Your task to perform on an android device: check google app version Image 0: 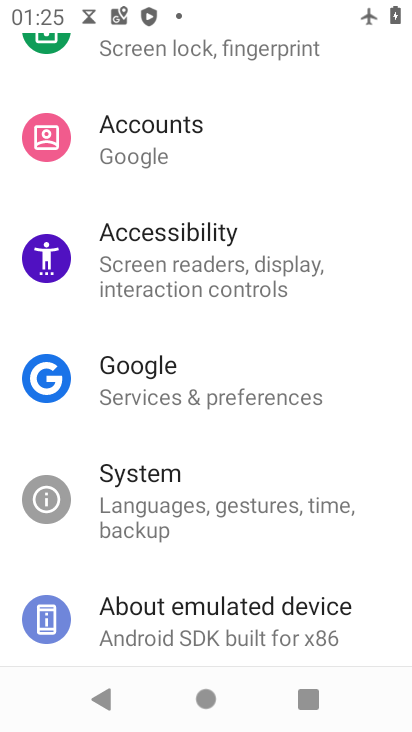
Step 0: press home button
Your task to perform on an android device: check google app version Image 1: 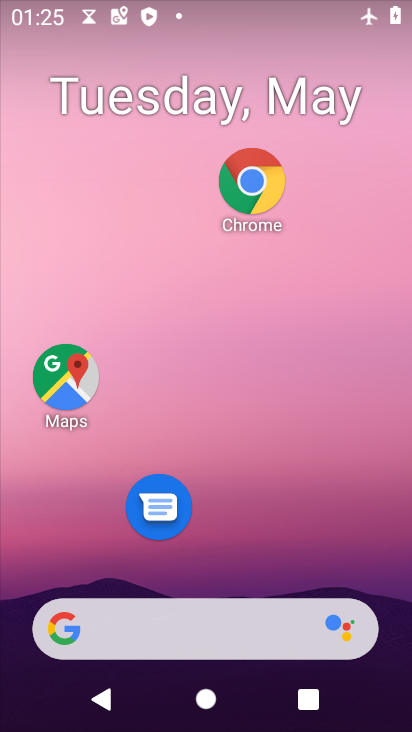
Step 1: click (243, 173)
Your task to perform on an android device: check google app version Image 2: 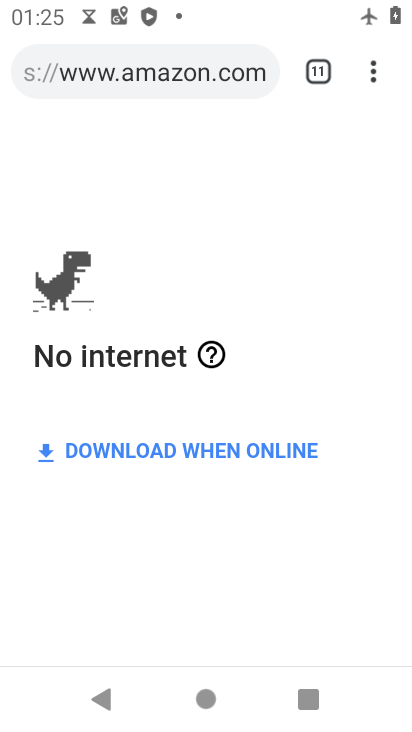
Step 2: press home button
Your task to perform on an android device: check google app version Image 3: 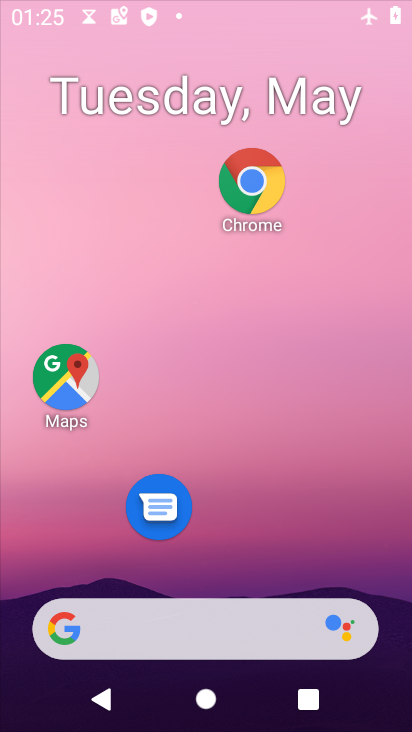
Step 3: drag from (205, 548) to (252, 236)
Your task to perform on an android device: check google app version Image 4: 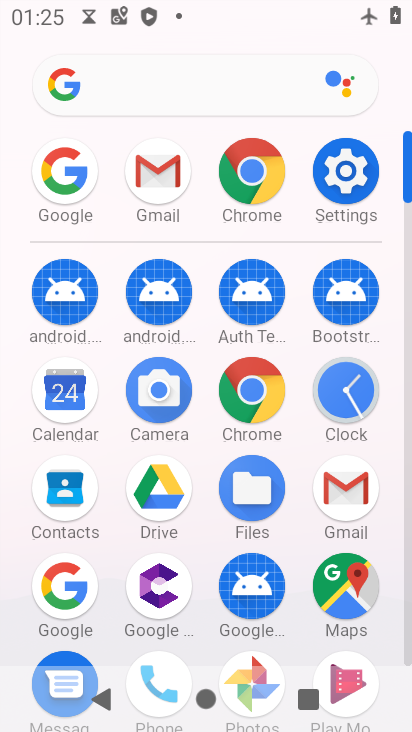
Step 4: click (65, 583)
Your task to perform on an android device: check google app version Image 5: 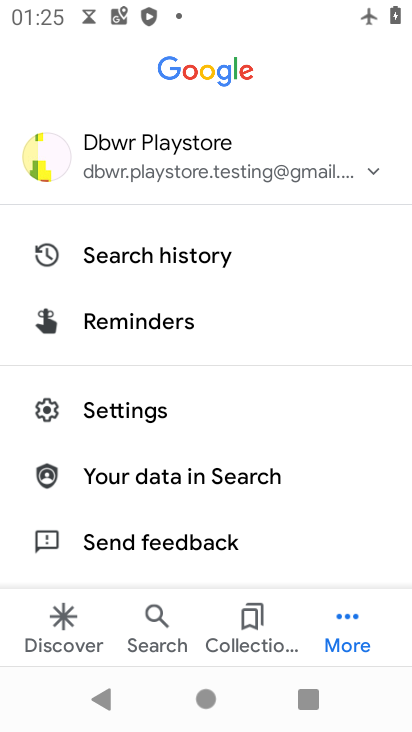
Step 5: click (132, 415)
Your task to perform on an android device: check google app version Image 6: 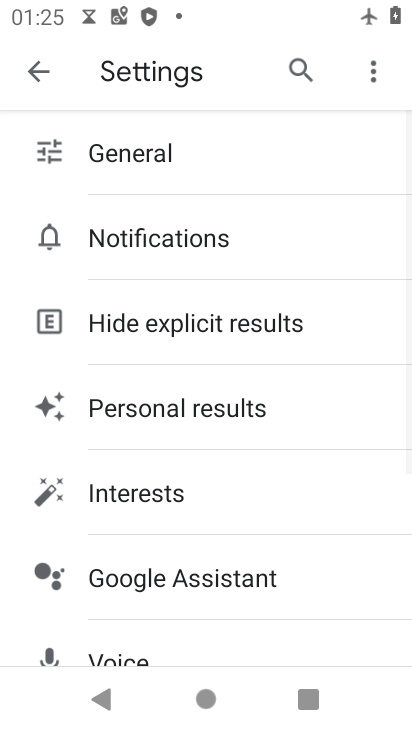
Step 6: drag from (218, 196) to (292, 446)
Your task to perform on an android device: check google app version Image 7: 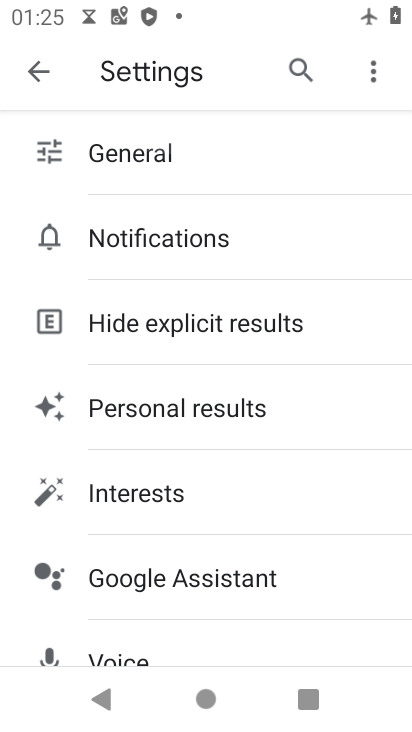
Step 7: drag from (243, 555) to (326, 103)
Your task to perform on an android device: check google app version Image 8: 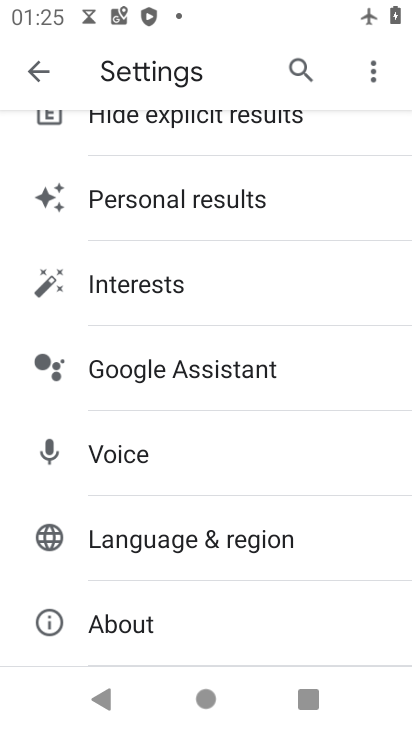
Step 8: drag from (276, 469) to (274, 318)
Your task to perform on an android device: check google app version Image 9: 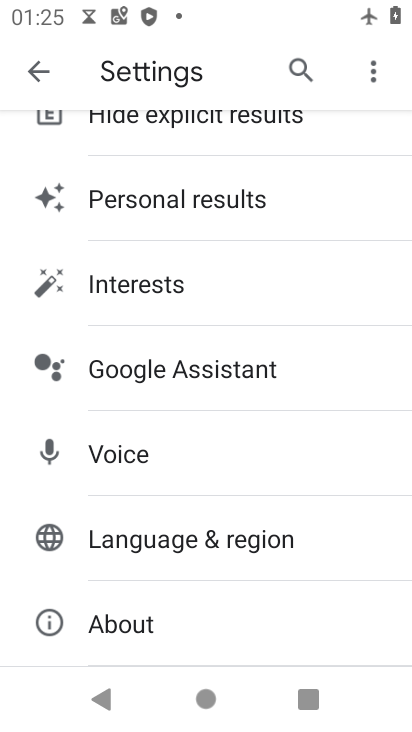
Step 9: click (228, 642)
Your task to perform on an android device: check google app version Image 10: 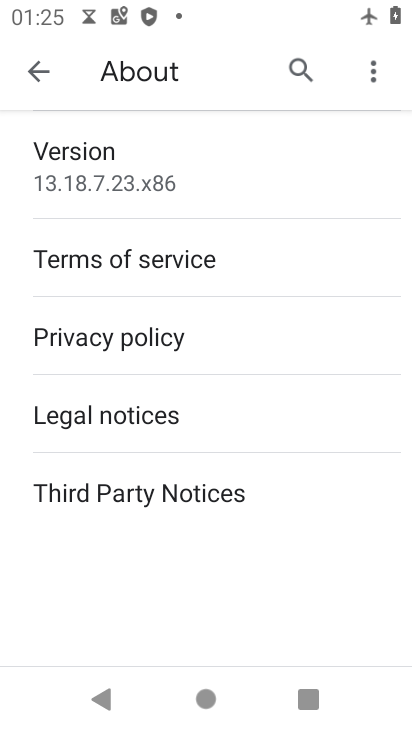
Step 10: task complete